Your task to perform on an android device: add a label to a message in the gmail app Image 0: 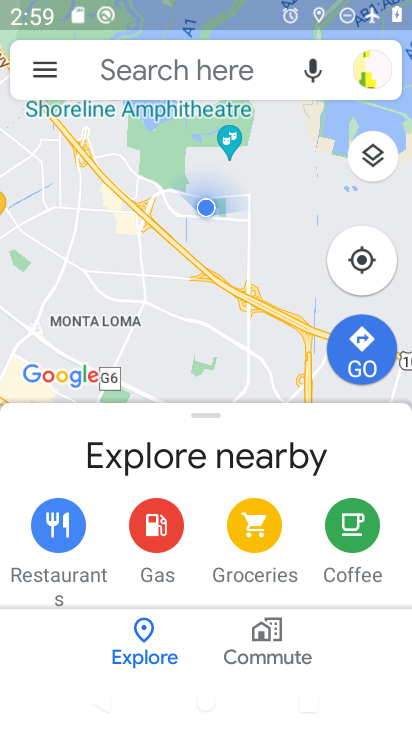
Step 0: press back button
Your task to perform on an android device: add a label to a message in the gmail app Image 1: 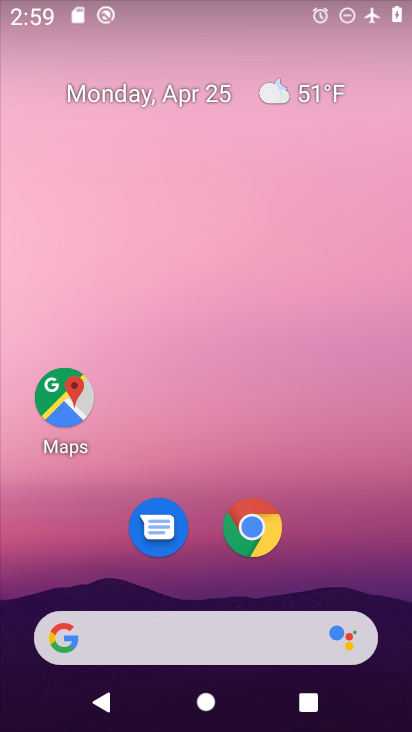
Step 1: drag from (319, 584) to (291, 48)
Your task to perform on an android device: add a label to a message in the gmail app Image 2: 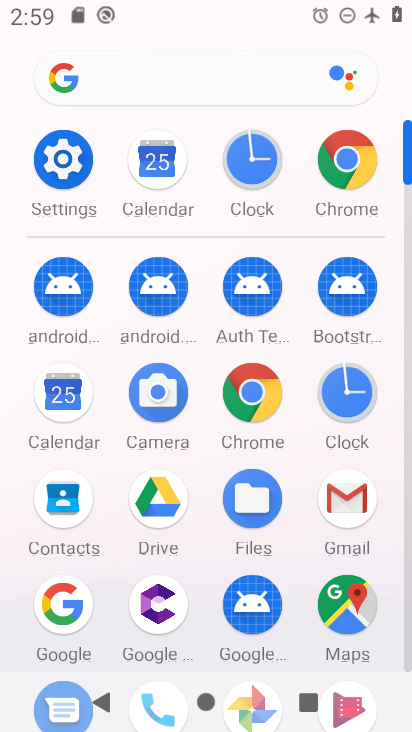
Step 2: drag from (9, 593) to (7, 221)
Your task to perform on an android device: add a label to a message in the gmail app Image 3: 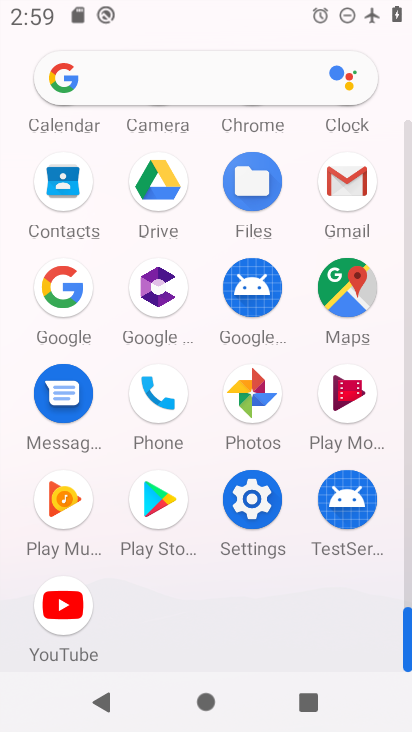
Step 3: click (345, 171)
Your task to perform on an android device: add a label to a message in the gmail app Image 4: 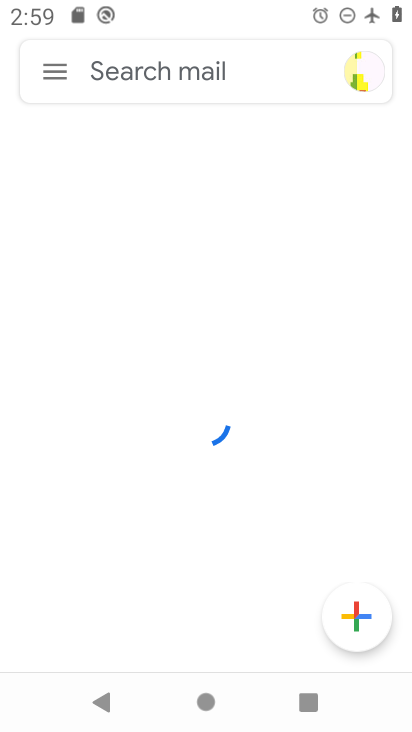
Step 4: click (57, 64)
Your task to perform on an android device: add a label to a message in the gmail app Image 5: 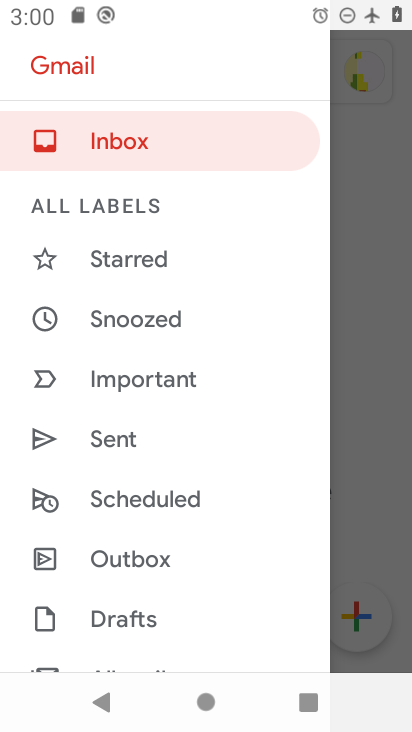
Step 5: drag from (229, 436) to (233, 125)
Your task to perform on an android device: add a label to a message in the gmail app Image 6: 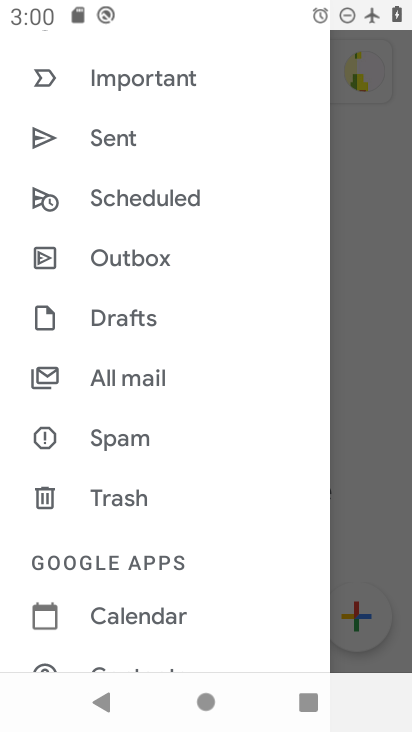
Step 6: drag from (207, 534) to (222, 121)
Your task to perform on an android device: add a label to a message in the gmail app Image 7: 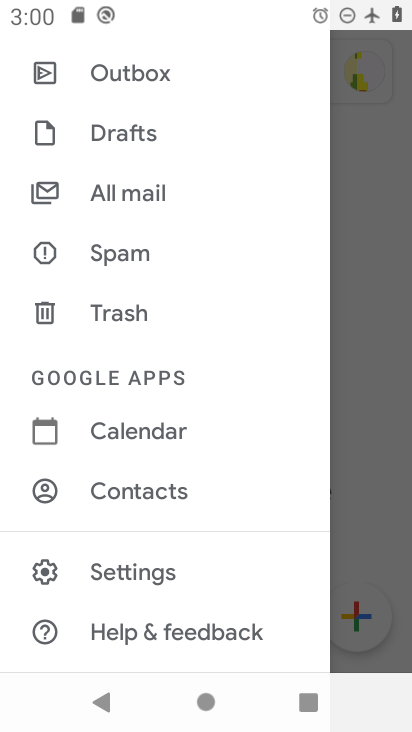
Step 7: drag from (191, 529) to (217, 161)
Your task to perform on an android device: add a label to a message in the gmail app Image 8: 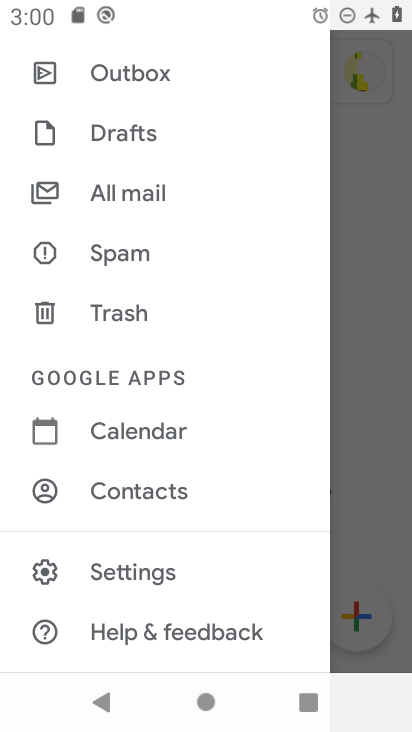
Step 8: click (155, 197)
Your task to perform on an android device: add a label to a message in the gmail app Image 9: 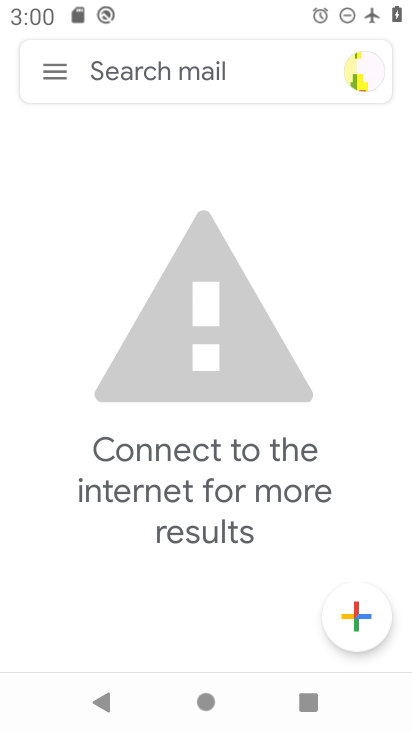
Step 9: task complete